Your task to perform on an android device: Open notification settings Image 0: 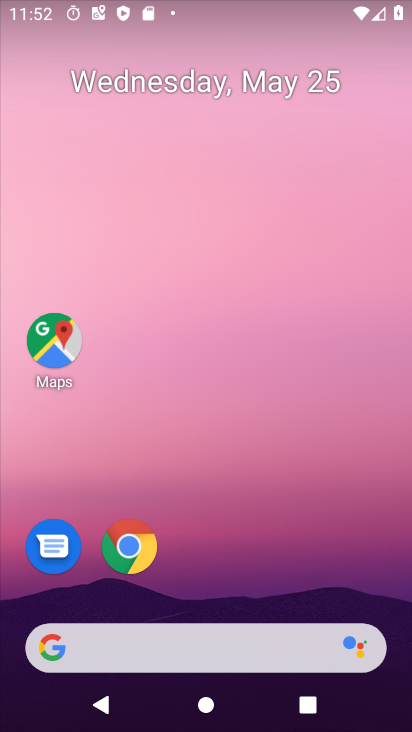
Step 0: drag from (258, 575) to (287, 77)
Your task to perform on an android device: Open notification settings Image 1: 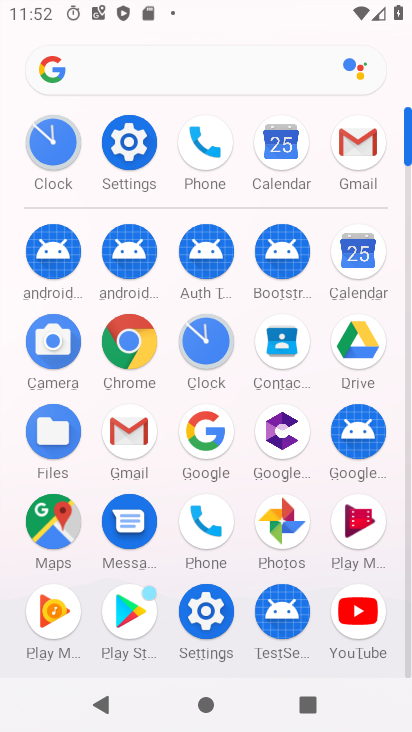
Step 1: click (199, 609)
Your task to perform on an android device: Open notification settings Image 2: 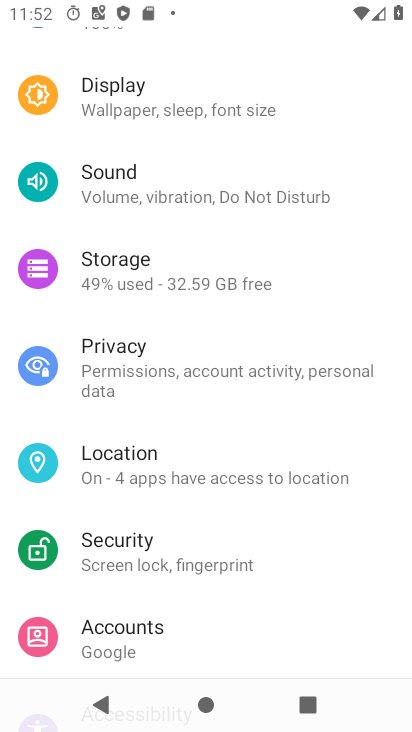
Step 2: drag from (137, 204) to (181, 670)
Your task to perform on an android device: Open notification settings Image 3: 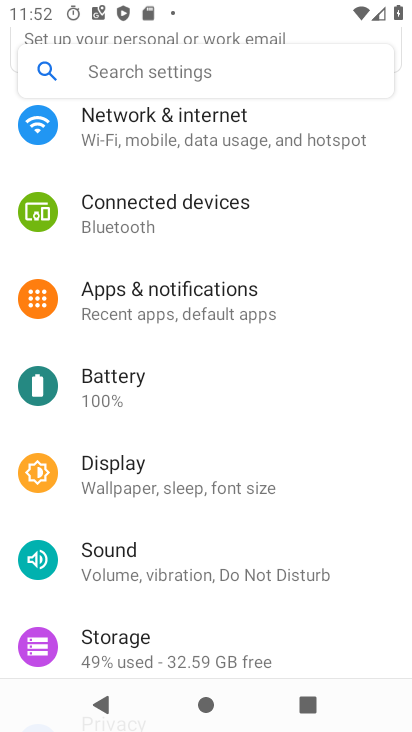
Step 3: click (171, 302)
Your task to perform on an android device: Open notification settings Image 4: 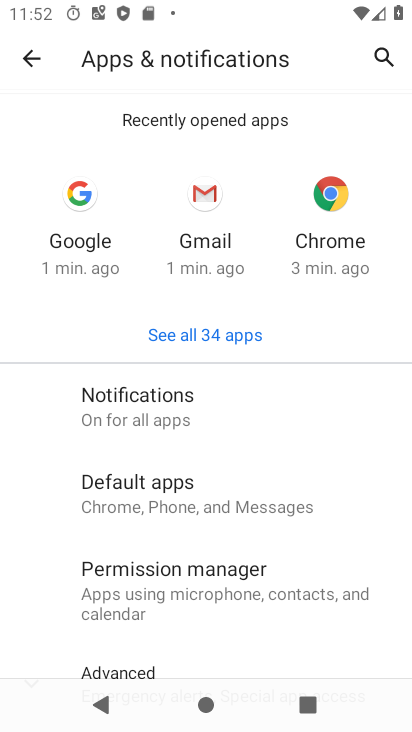
Step 4: task complete